Your task to perform on an android device: Play the last video I watched on Youtube Image 0: 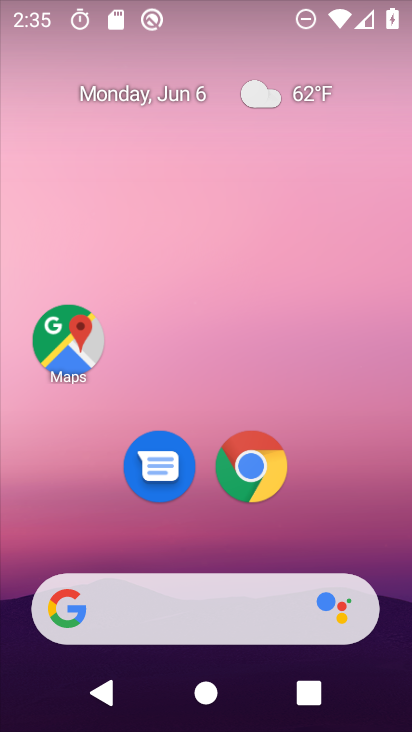
Step 0: drag from (217, 548) to (221, 105)
Your task to perform on an android device: Play the last video I watched on Youtube Image 1: 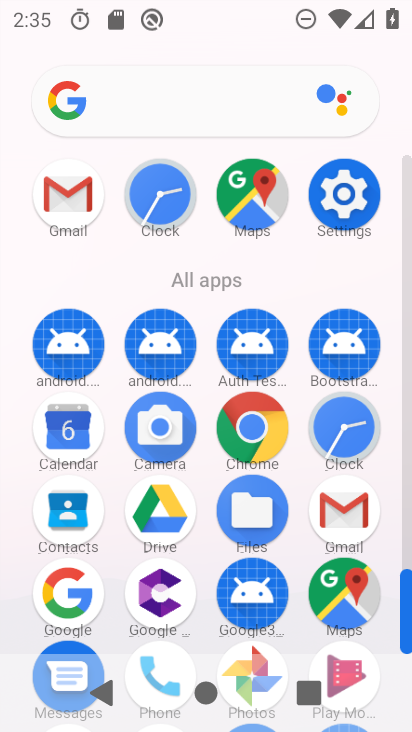
Step 1: drag from (291, 590) to (281, 158)
Your task to perform on an android device: Play the last video I watched on Youtube Image 2: 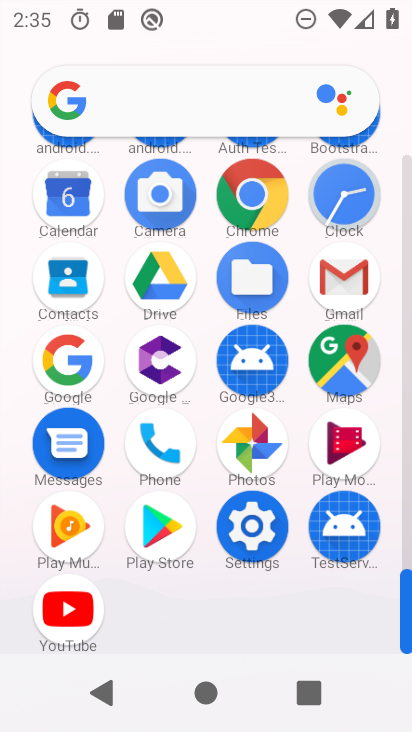
Step 2: click (63, 612)
Your task to perform on an android device: Play the last video I watched on Youtube Image 3: 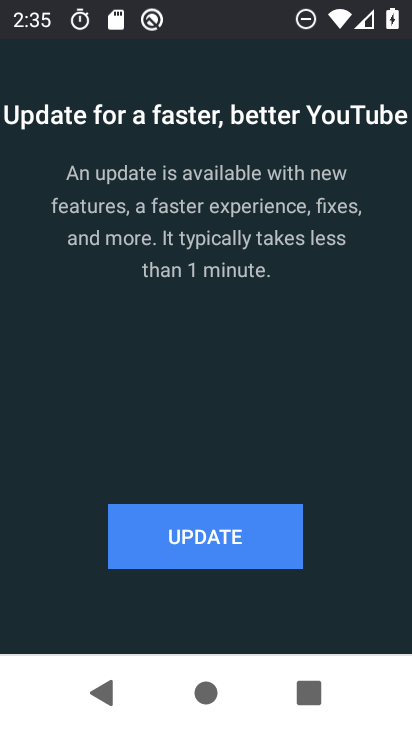
Step 3: click (194, 546)
Your task to perform on an android device: Play the last video I watched on Youtube Image 4: 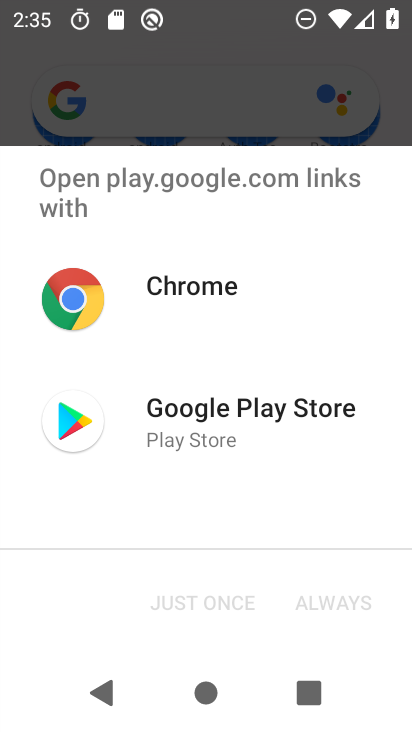
Step 4: click (225, 433)
Your task to perform on an android device: Play the last video I watched on Youtube Image 5: 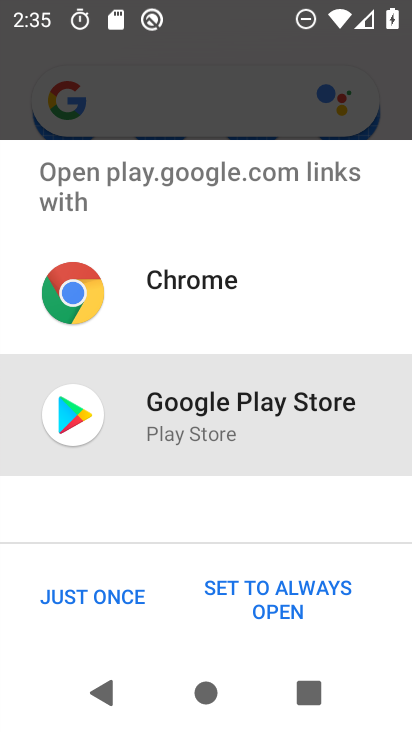
Step 5: click (279, 598)
Your task to perform on an android device: Play the last video I watched on Youtube Image 6: 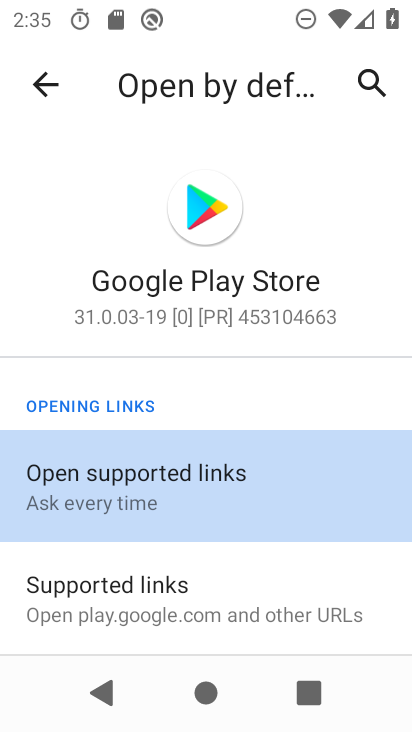
Step 6: click (181, 509)
Your task to perform on an android device: Play the last video I watched on Youtube Image 7: 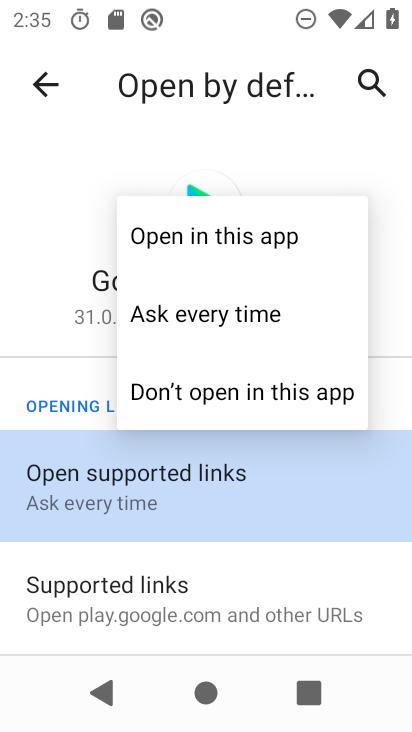
Step 7: click (210, 227)
Your task to perform on an android device: Play the last video I watched on Youtube Image 8: 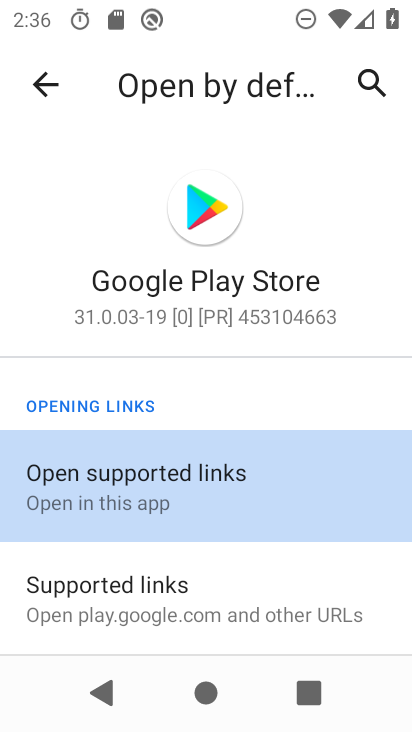
Step 8: click (35, 83)
Your task to perform on an android device: Play the last video I watched on Youtube Image 9: 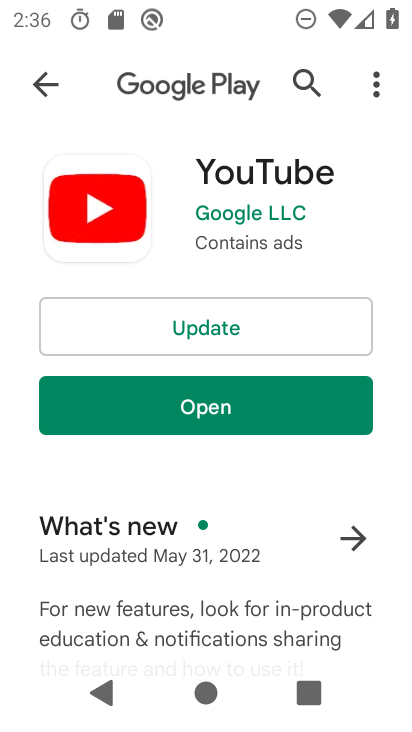
Step 9: click (146, 332)
Your task to perform on an android device: Play the last video I watched on Youtube Image 10: 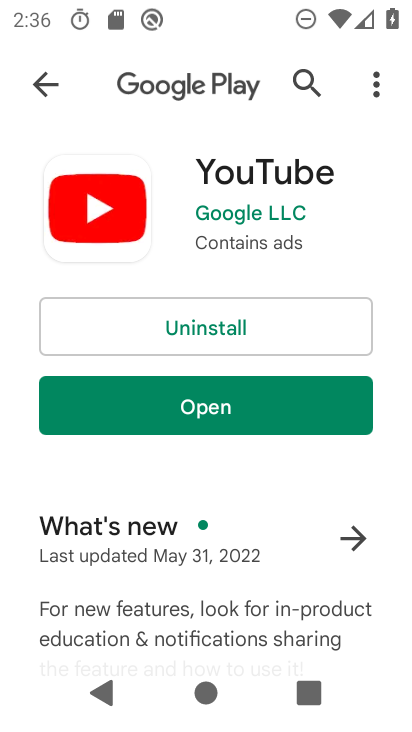
Step 10: click (181, 404)
Your task to perform on an android device: Play the last video I watched on Youtube Image 11: 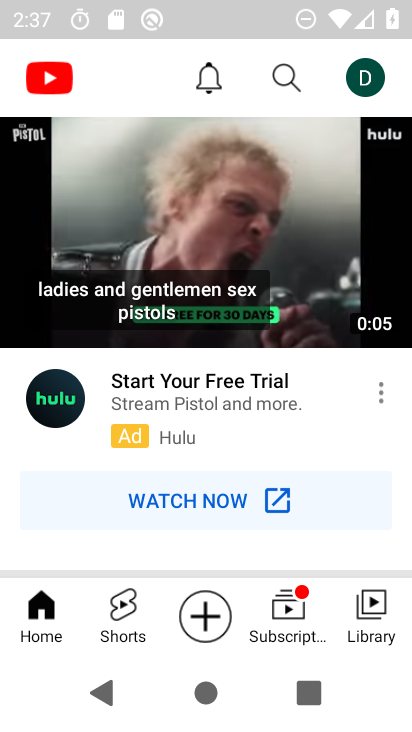
Step 11: task complete